Your task to perform on an android device: What is the recent news? Image 0: 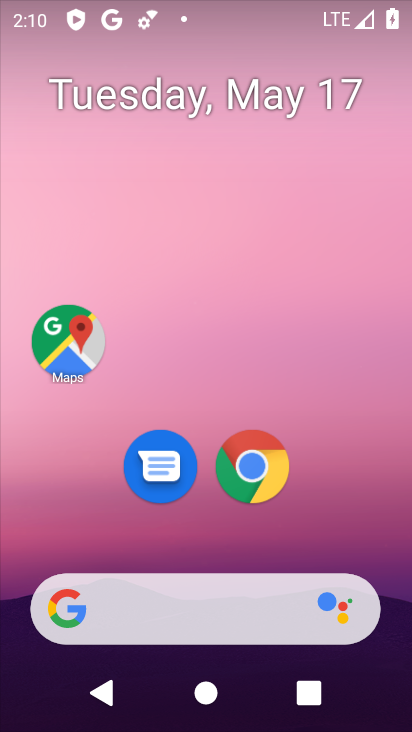
Step 0: drag from (315, 516) to (349, 127)
Your task to perform on an android device: What is the recent news? Image 1: 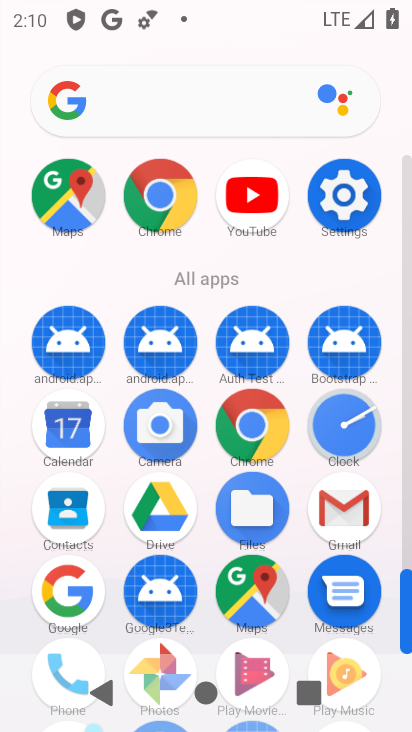
Step 1: click (158, 187)
Your task to perform on an android device: What is the recent news? Image 2: 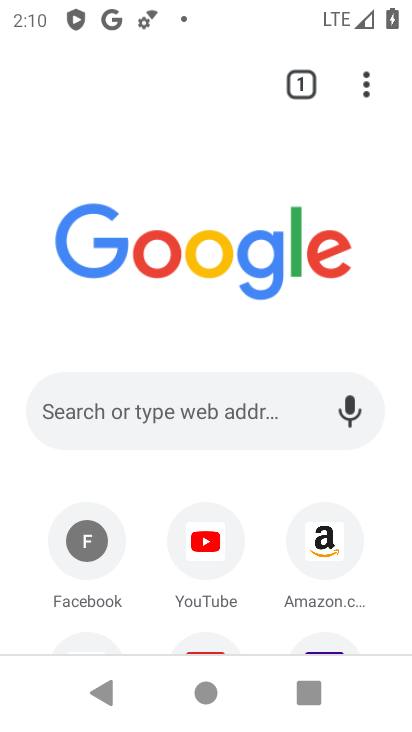
Step 2: click (220, 400)
Your task to perform on an android device: What is the recent news? Image 3: 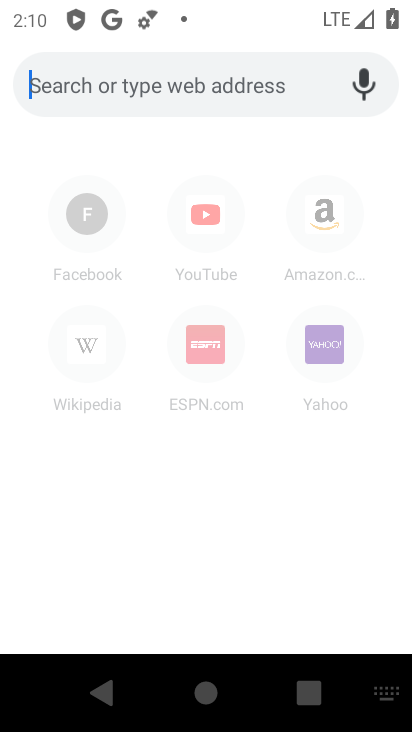
Step 3: type "news"
Your task to perform on an android device: What is the recent news? Image 4: 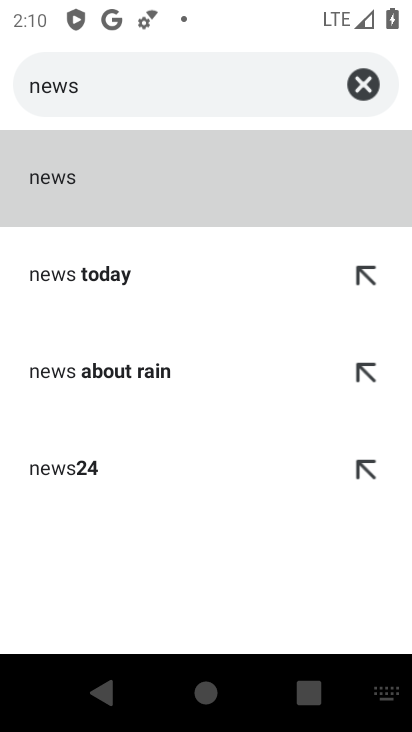
Step 4: click (75, 167)
Your task to perform on an android device: What is the recent news? Image 5: 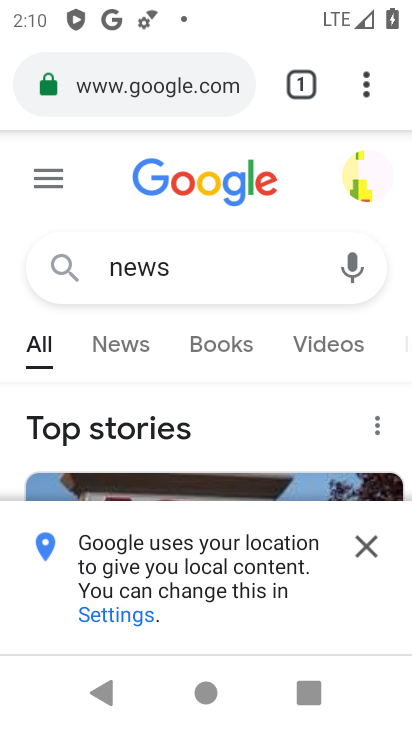
Step 5: click (132, 341)
Your task to perform on an android device: What is the recent news? Image 6: 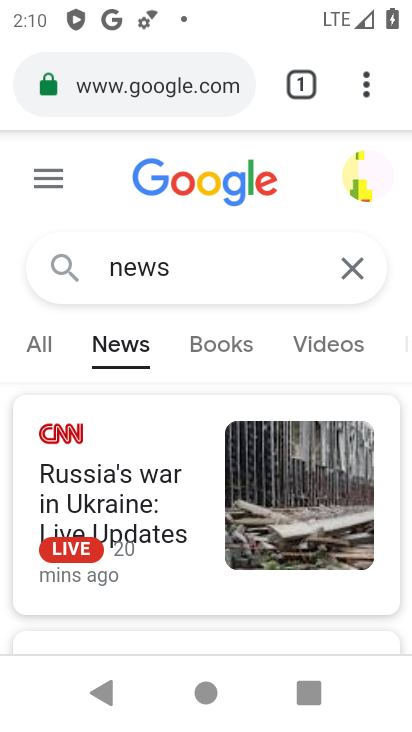
Step 6: task complete